Your task to perform on an android device: Turn off the flashlight Image 0: 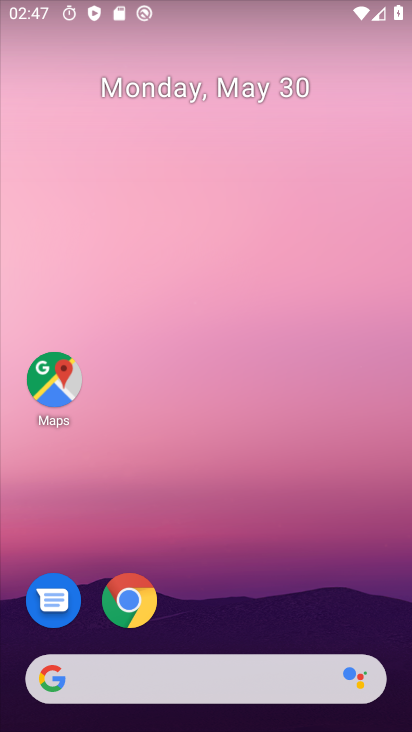
Step 0: drag from (234, 598) to (262, 66)
Your task to perform on an android device: Turn off the flashlight Image 1: 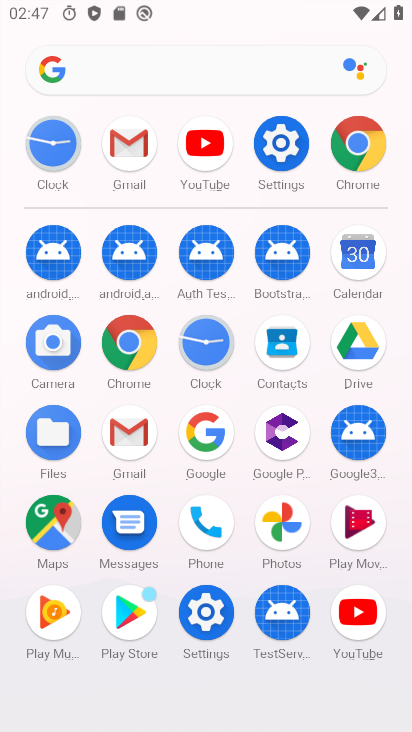
Step 1: click (280, 158)
Your task to perform on an android device: Turn off the flashlight Image 2: 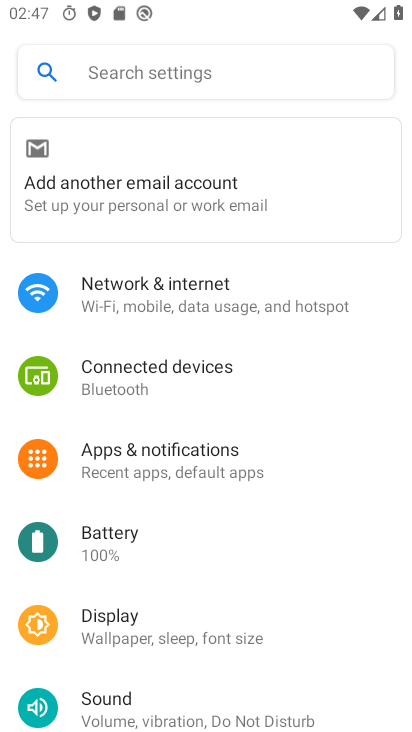
Step 2: drag from (225, 659) to (256, 192)
Your task to perform on an android device: Turn off the flashlight Image 3: 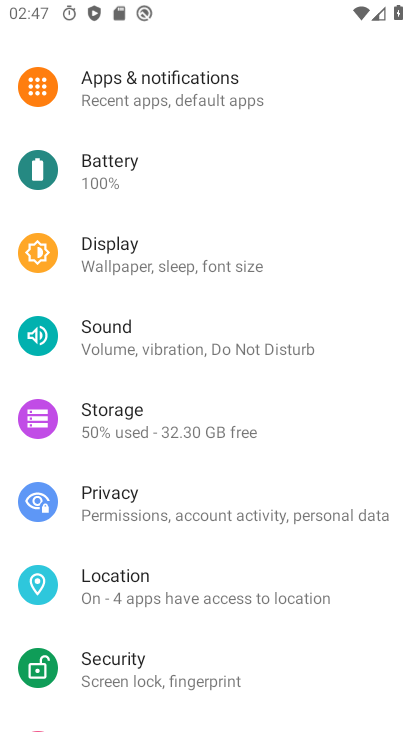
Step 3: click (226, 96)
Your task to perform on an android device: Turn off the flashlight Image 4: 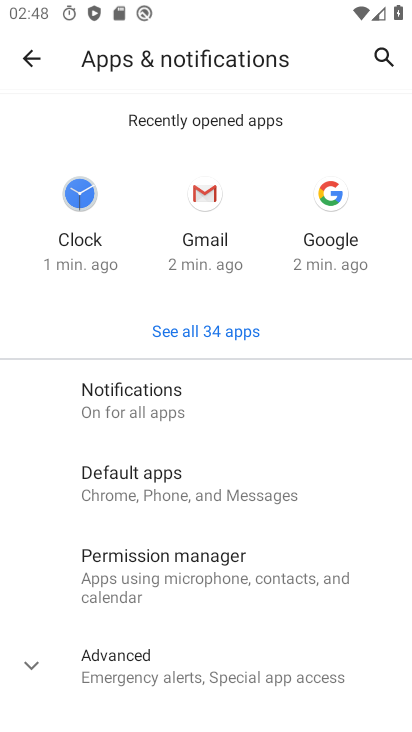
Step 4: click (199, 671)
Your task to perform on an android device: Turn off the flashlight Image 5: 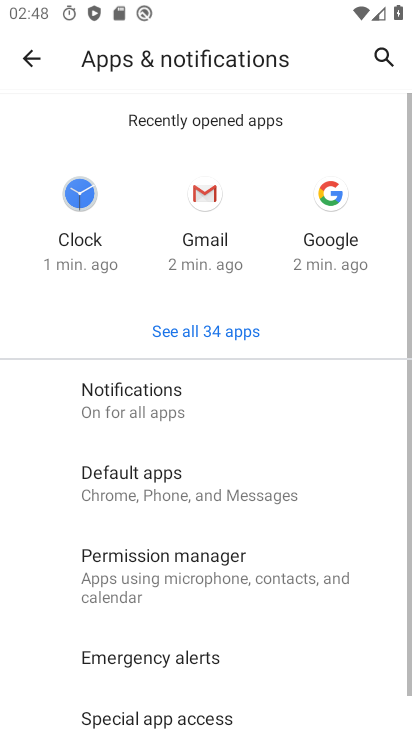
Step 5: drag from (236, 599) to (249, 320)
Your task to perform on an android device: Turn off the flashlight Image 6: 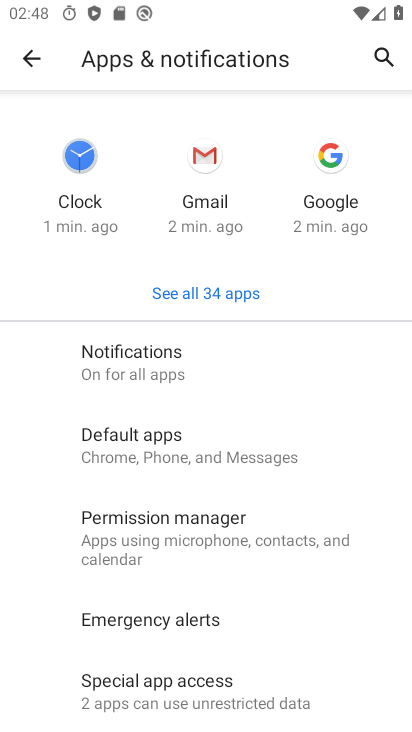
Step 6: click (195, 691)
Your task to perform on an android device: Turn off the flashlight Image 7: 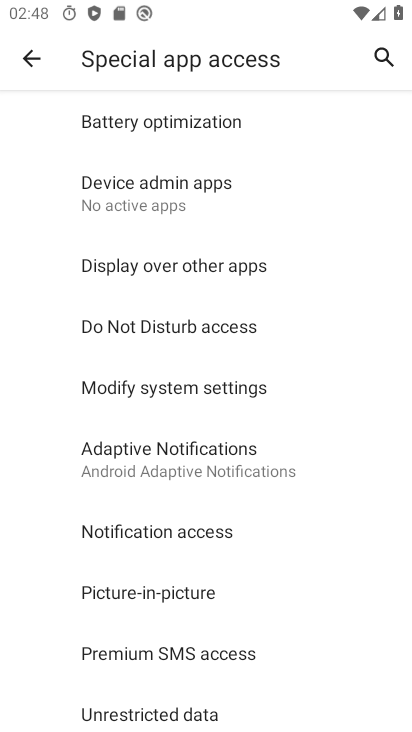
Step 7: task complete